Your task to perform on an android device: Show me popular games on the Play Store Image 0: 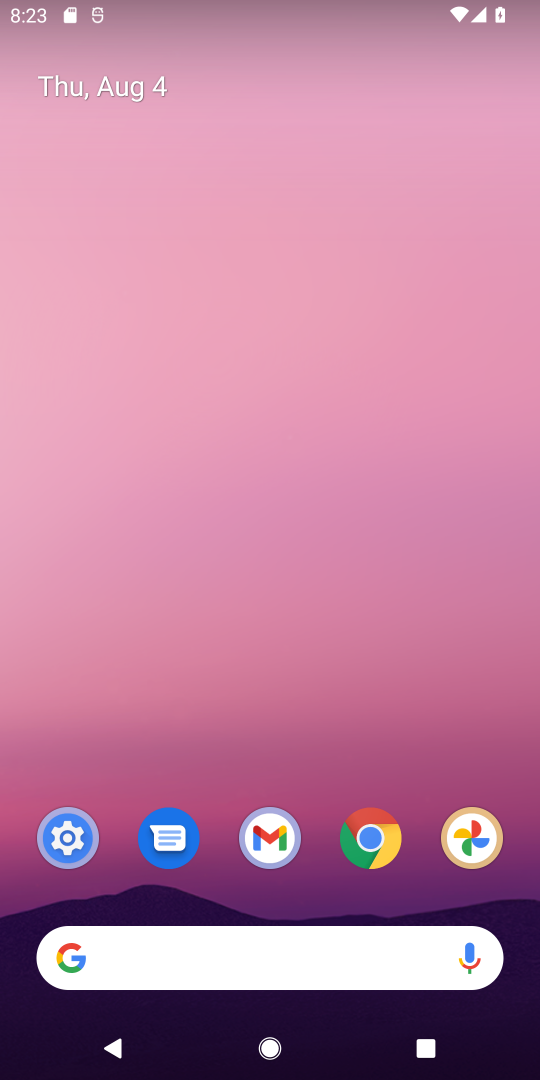
Step 0: press home button
Your task to perform on an android device: Show me popular games on the Play Store Image 1: 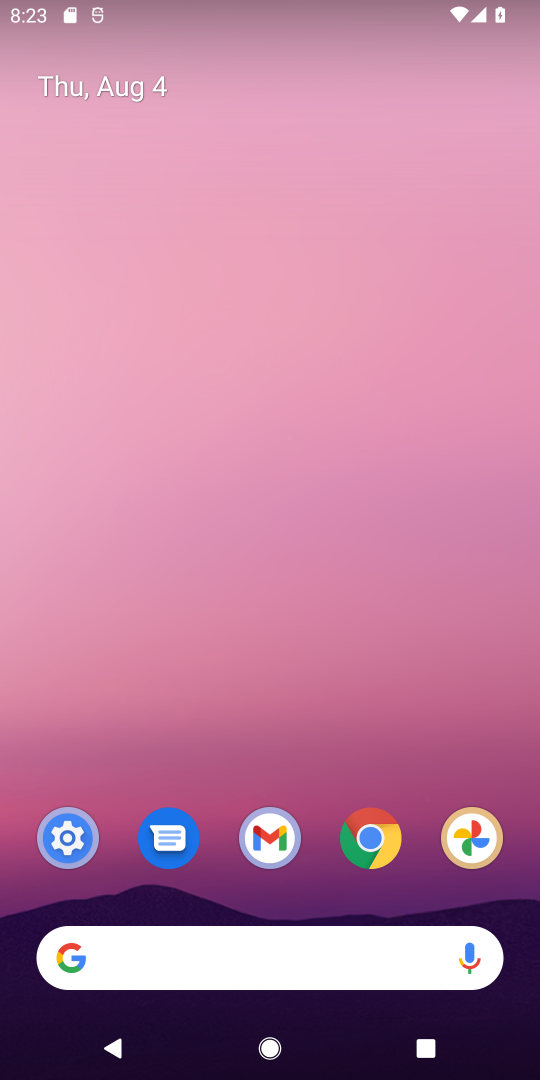
Step 1: drag from (300, 703) to (262, 184)
Your task to perform on an android device: Show me popular games on the Play Store Image 2: 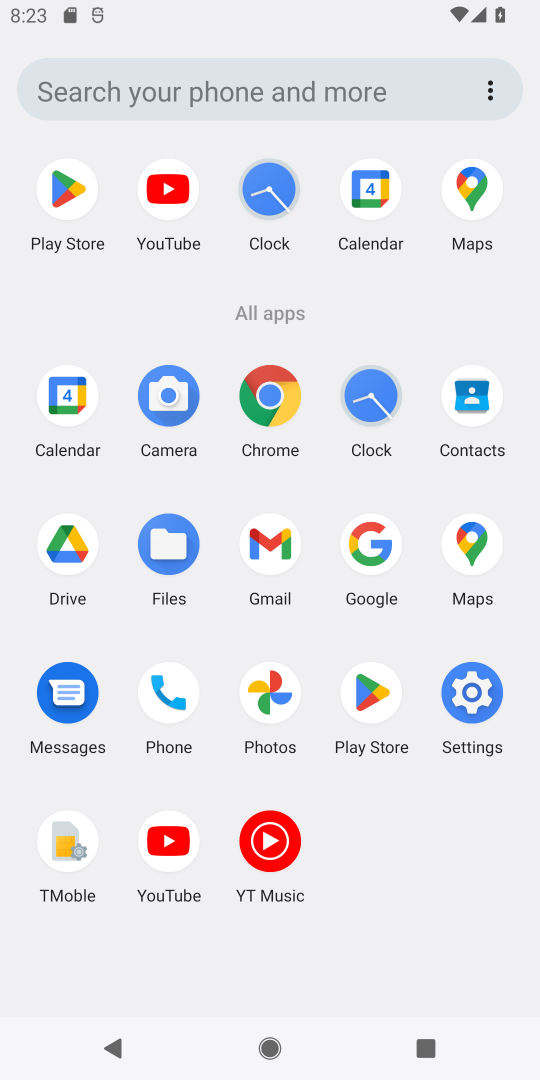
Step 2: click (374, 691)
Your task to perform on an android device: Show me popular games on the Play Store Image 3: 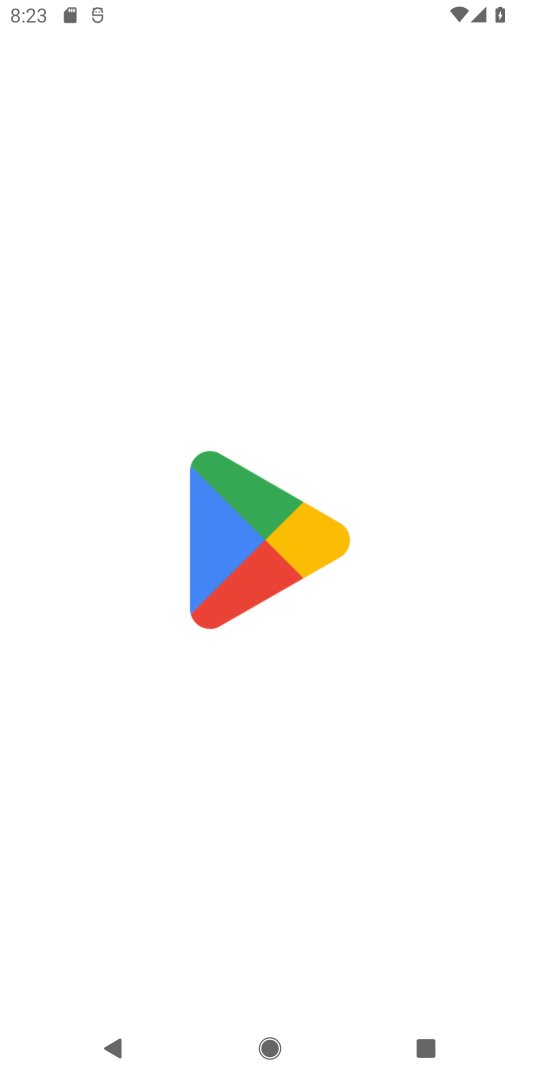
Step 3: task complete